Your task to perform on an android device: What's the weather going to be this weekend? Image 0: 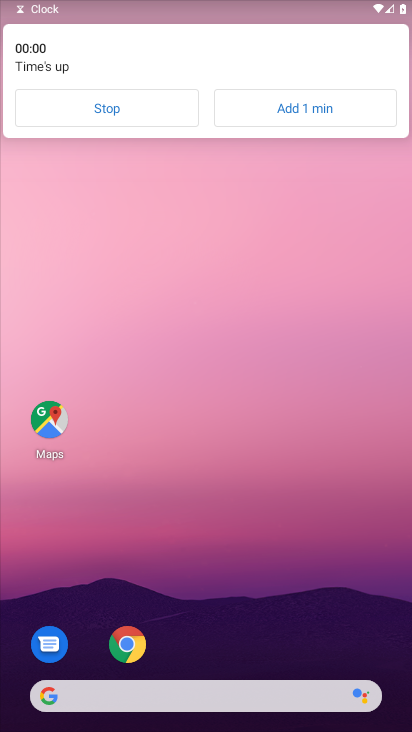
Step 0: drag from (211, 653) to (203, 5)
Your task to perform on an android device: What's the weather going to be this weekend? Image 1: 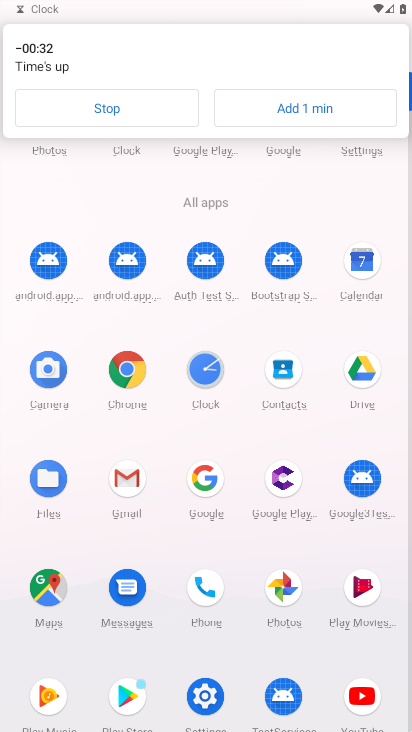
Step 1: click (190, 482)
Your task to perform on an android device: What's the weather going to be this weekend? Image 2: 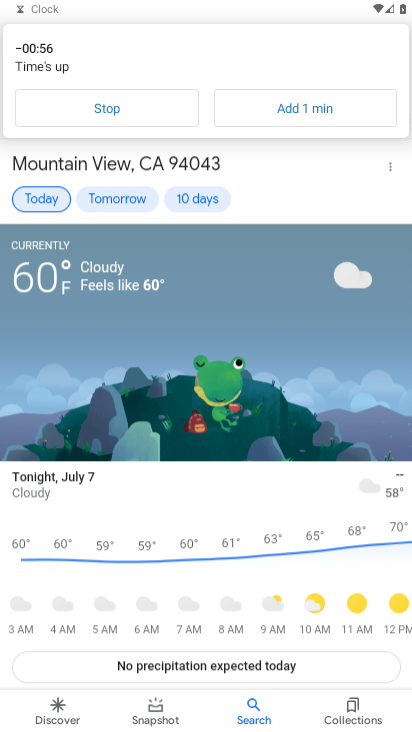
Step 2: click (190, 204)
Your task to perform on an android device: What's the weather going to be this weekend? Image 3: 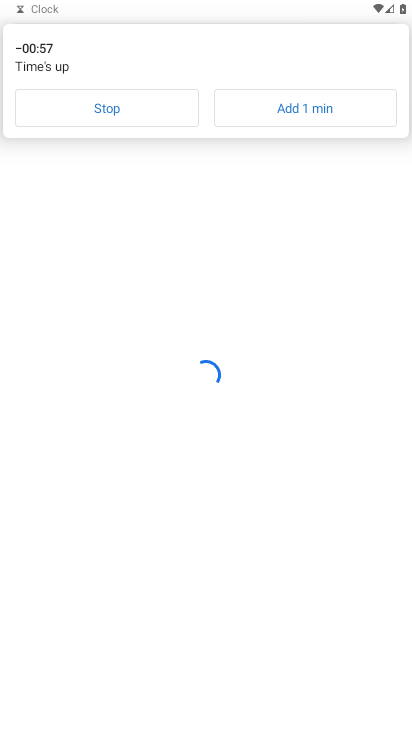
Step 3: click (98, 107)
Your task to perform on an android device: What's the weather going to be this weekend? Image 4: 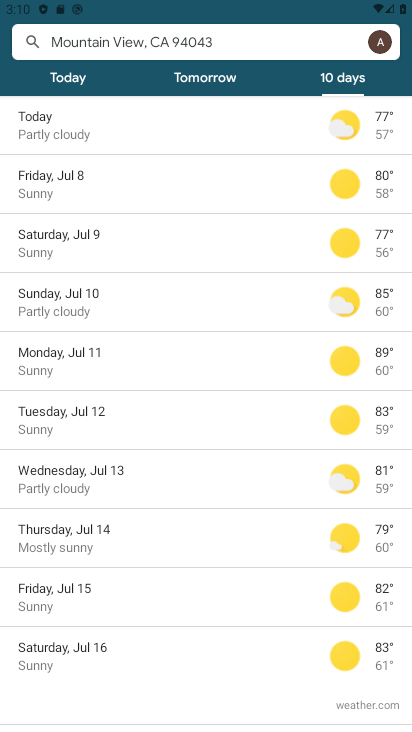
Step 4: task complete